Your task to perform on an android device: empty trash in the gmail app Image 0: 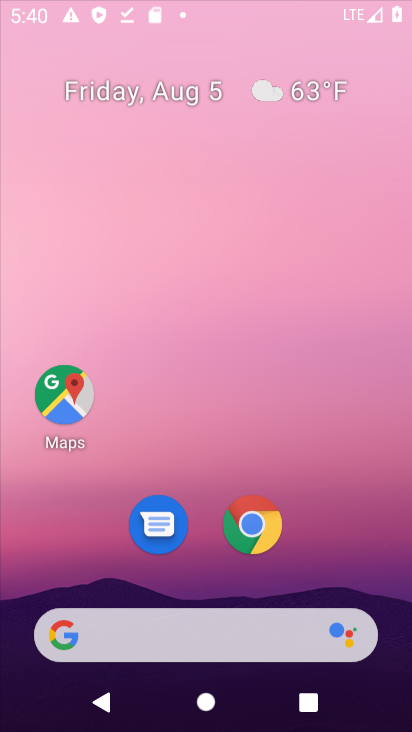
Step 0: drag from (243, 198) to (251, 284)
Your task to perform on an android device: empty trash in the gmail app Image 1: 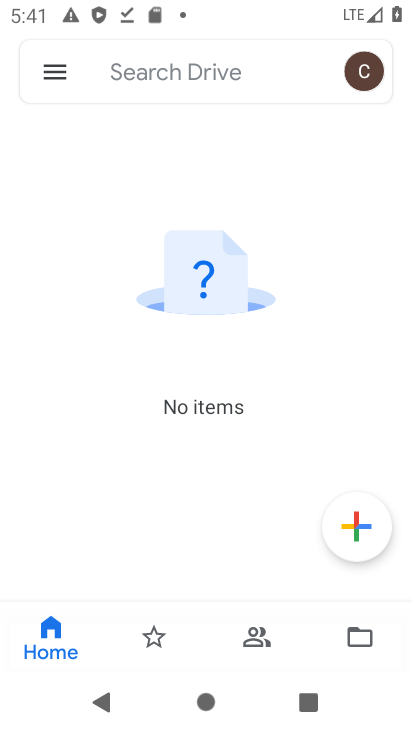
Step 1: press home button
Your task to perform on an android device: empty trash in the gmail app Image 2: 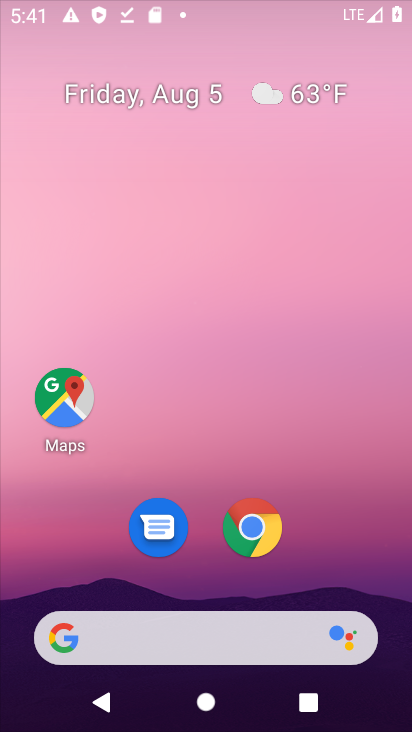
Step 2: drag from (196, 531) to (222, 131)
Your task to perform on an android device: empty trash in the gmail app Image 3: 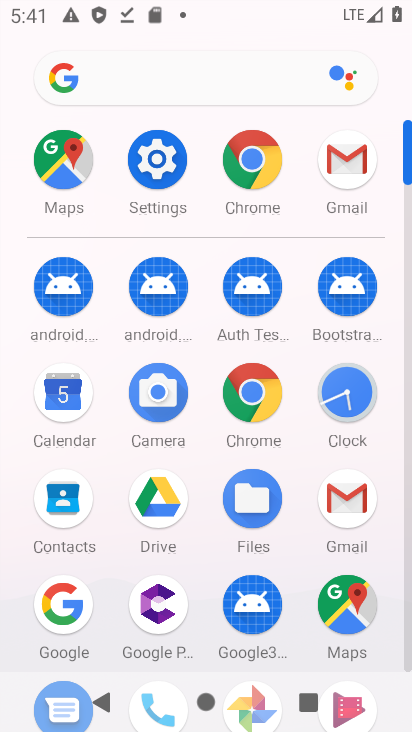
Step 3: drag from (218, 609) to (215, 190)
Your task to perform on an android device: empty trash in the gmail app Image 4: 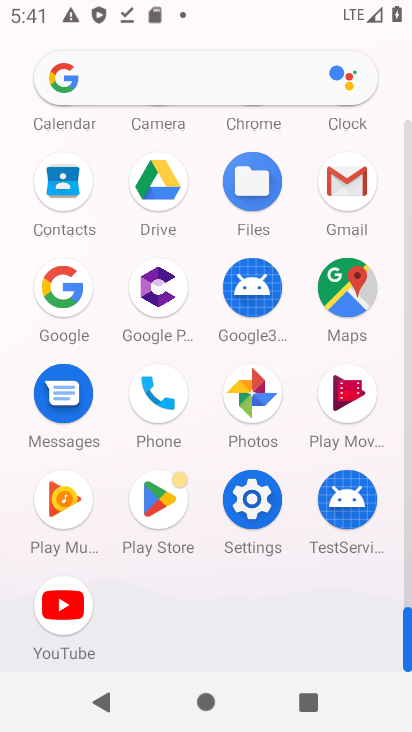
Step 4: drag from (201, 573) to (241, 185)
Your task to perform on an android device: empty trash in the gmail app Image 5: 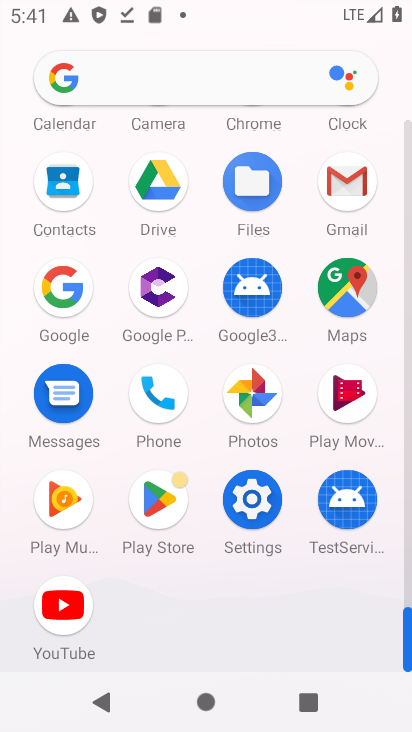
Step 5: drag from (194, 153) to (183, 689)
Your task to perform on an android device: empty trash in the gmail app Image 6: 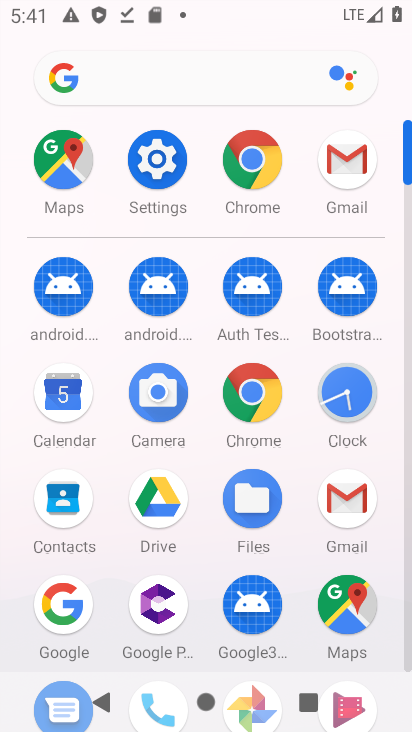
Step 6: click (341, 489)
Your task to perform on an android device: empty trash in the gmail app Image 7: 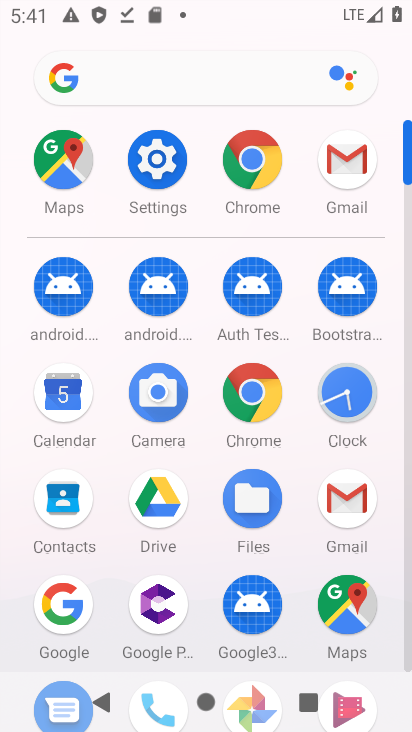
Step 7: click (341, 488)
Your task to perform on an android device: empty trash in the gmail app Image 8: 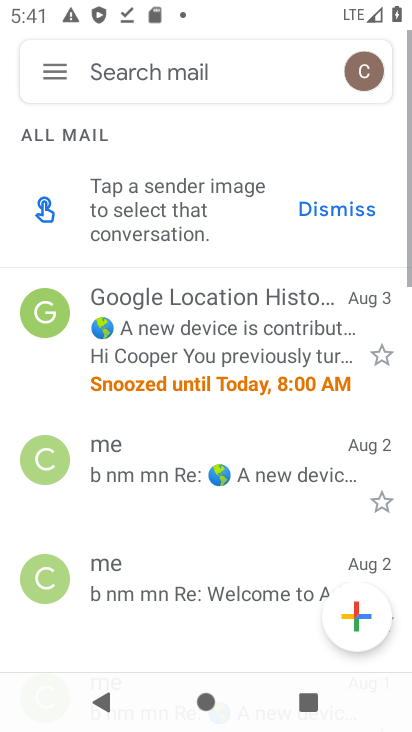
Step 8: drag from (203, 595) to (190, 414)
Your task to perform on an android device: empty trash in the gmail app Image 9: 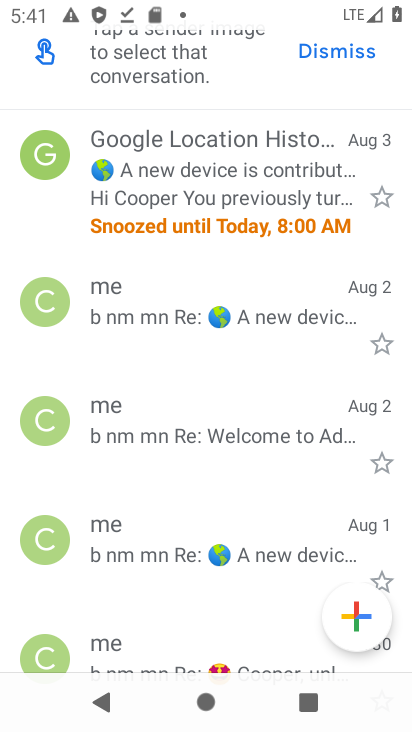
Step 9: drag from (76, 117) to (185, 494)
Your task to perform on an android device: empty trash in the gmail app Image 10: 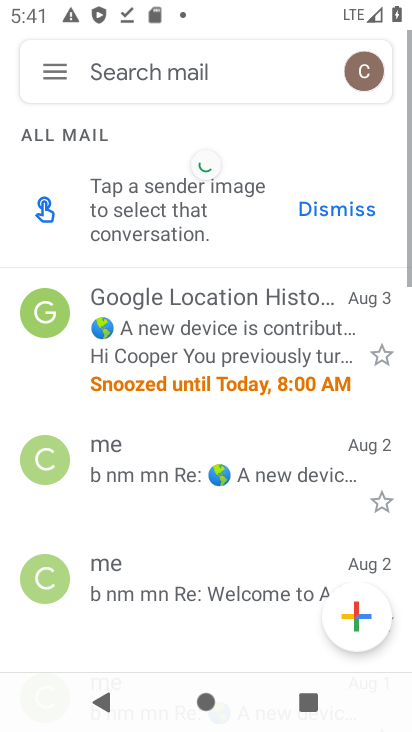
Step 10: click (64, 61)
Your task to perform on an android device: empty trash in the gmail app Image 11: 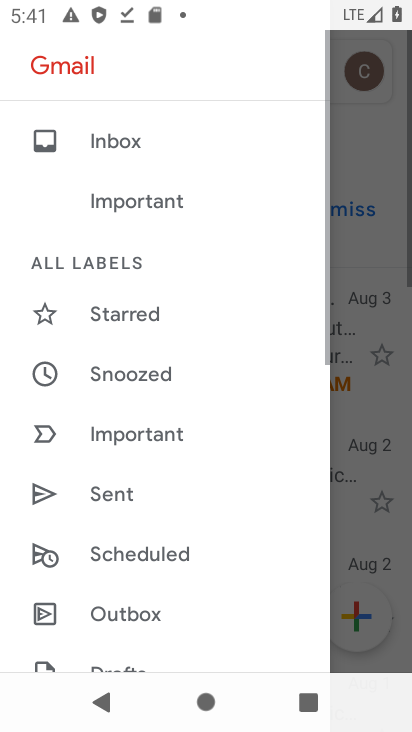
Step 11: drag from (124, 537) to (175, 155)
Your task to perform on an android device: empty trash in the gmail app Image 12: 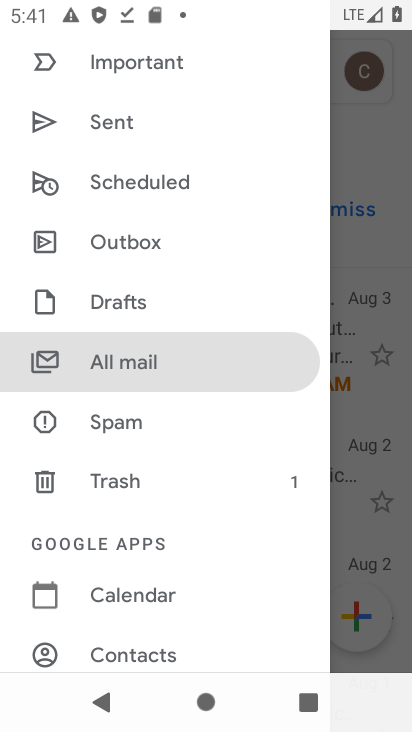
Step 12: click (130, 475)
Your task to perform on an android device: empty trash in the gmail app Image 13: 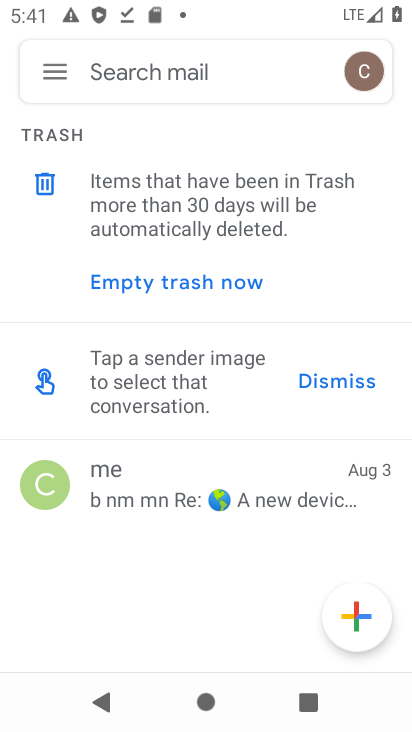
Step 13: click (186, 284)
Your task to perform on an android device: empty trash in the gmail app Image 14: 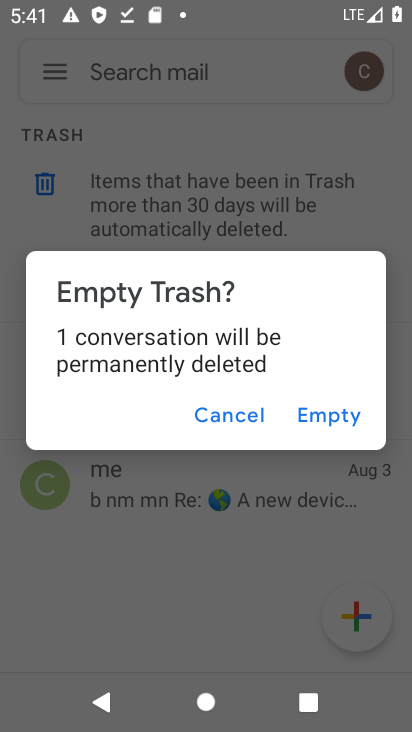
Step 14: click (317, 413)
Your task to perform on an android device: empty trash in the gmail app Image 15: 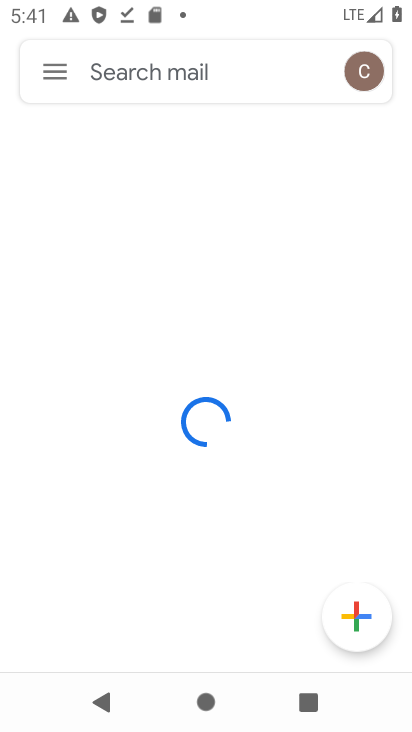
Step 15: task complete